Your task to perform on an android device: Go to Google Image 0: 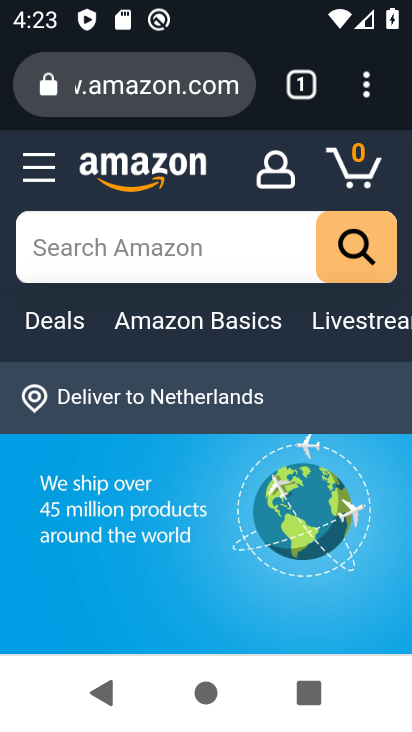
Step 0: press home button
Your task to perform on an android device: Go to Google Image 1: 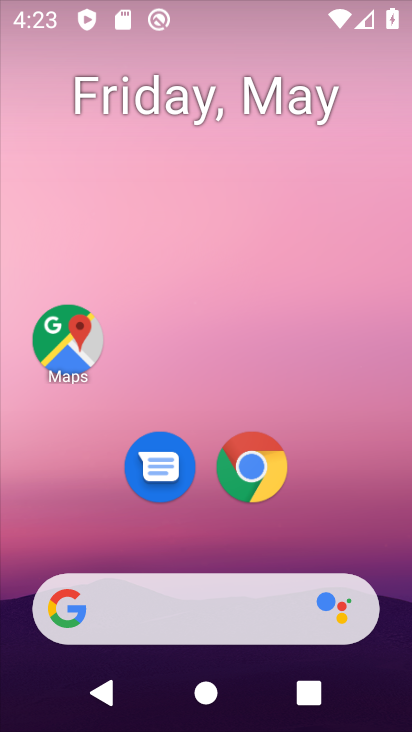
Step 1: drag from (339, 440) to (311, 133)
Your task to perform on an android device: Go to Google Image 2: 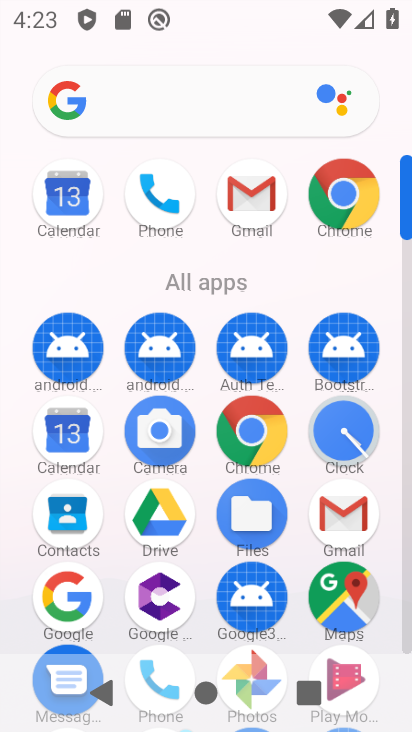
Step 2: click (66, 606)
Your task to perform on an android device: Go to Google Image 3: 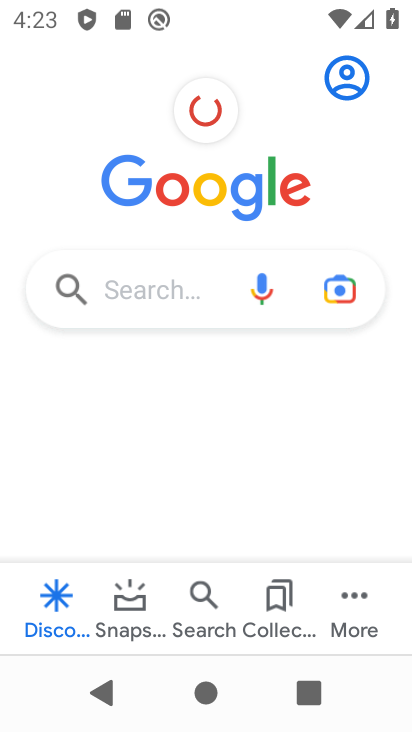
Step 3: task complete